Your task to perform on an android device: What's on my calendar tomorrow? Image 0: 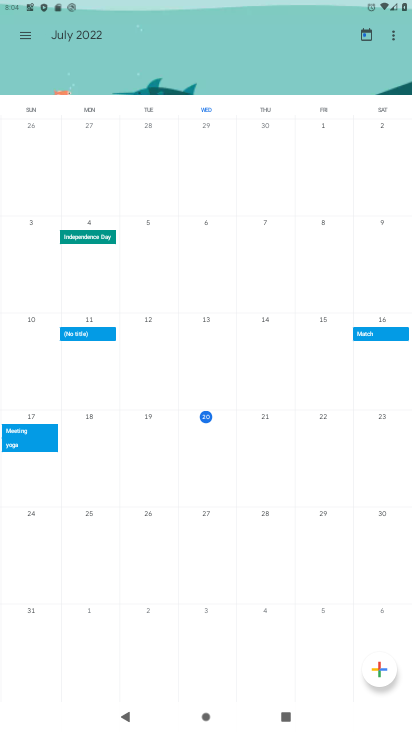
Step 0: press home button
Your task to perform on an android device: What's on my calendar tomorrow? Image 1: 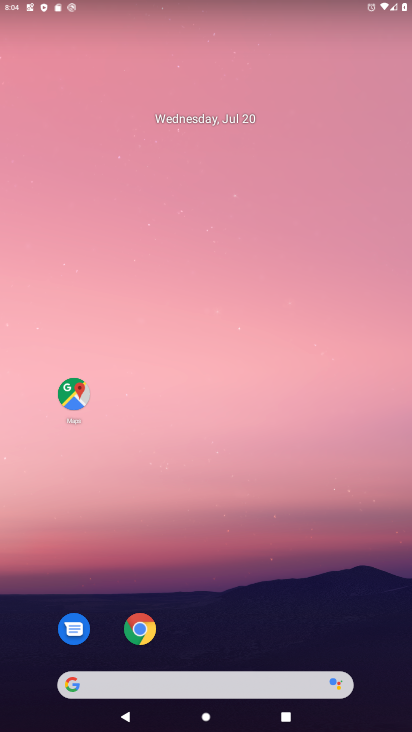
Step 1: drag from (202, 591) to (199, 307)
Your task to perform on an android device: What's on my calendar tomorrow? Image 2: 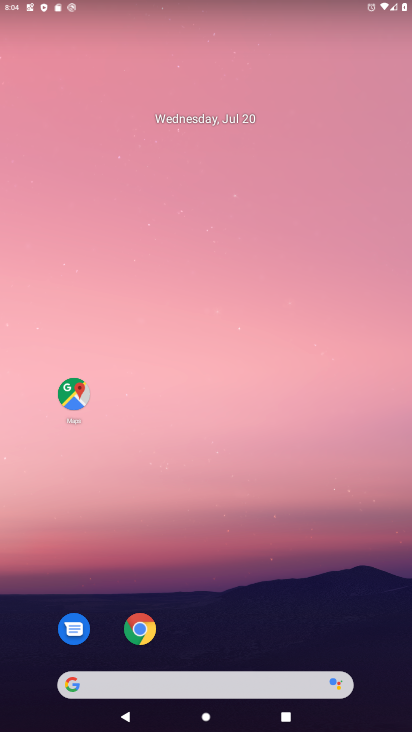
Step 2: drag from (179, 434) to (187, 14)
Your task to perform on an android device: What's on my calendar tomorrow? Image 3: 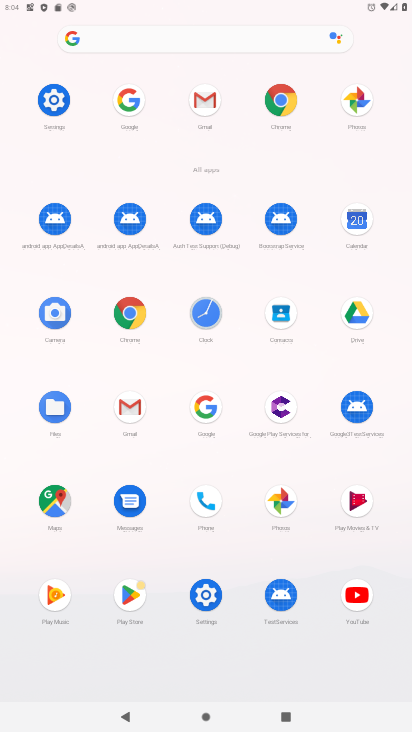
Step 3: click (358, 227)
Your task to perform on an android device: What's on my calendar tomorrow? Image 4: 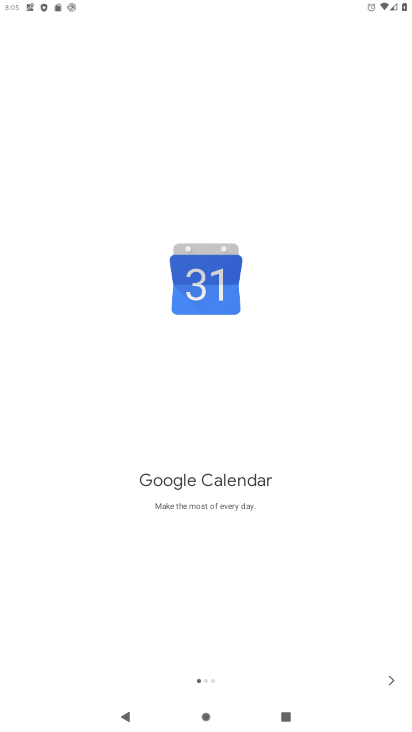
Step 4: click (388, 680)
Your task to perform on an android device: What's on my calendar tomorrow? Image 5: 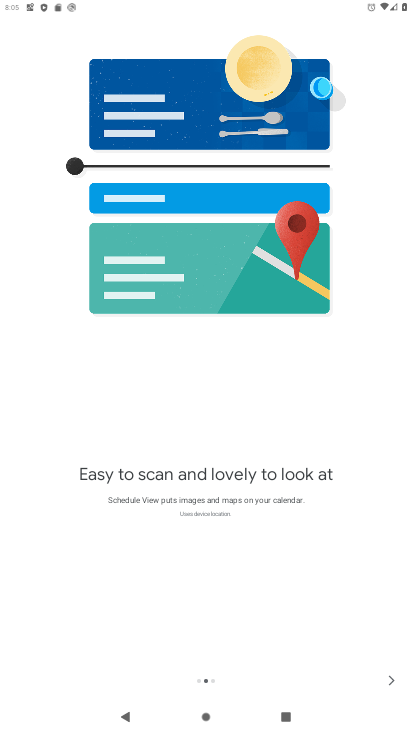
Step 5: click (388, 680)
Your task to perform on an android device: What's on my calendar tomorrow? Image 6: 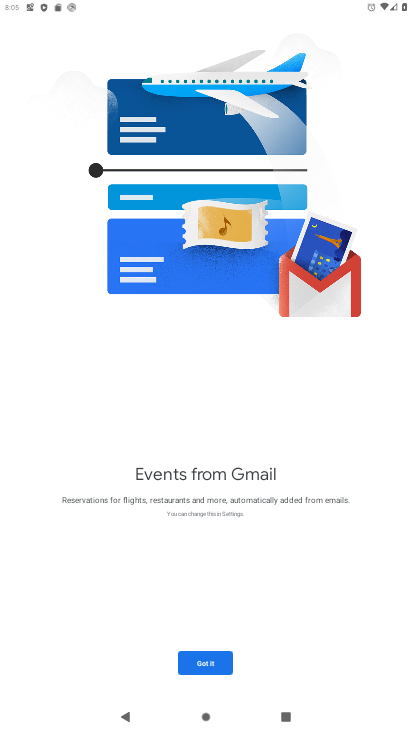
Step 6: click (210, 659)
Your task to perform on an android device: What's on my calendar tomorrow? Image 7: 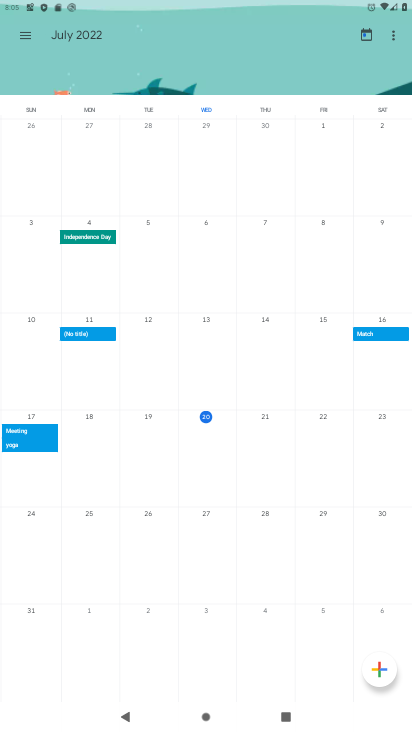
Step 7: click (262, 413)
Your task to perform on an android device: What's on my calendar tomorrow? Image 8: 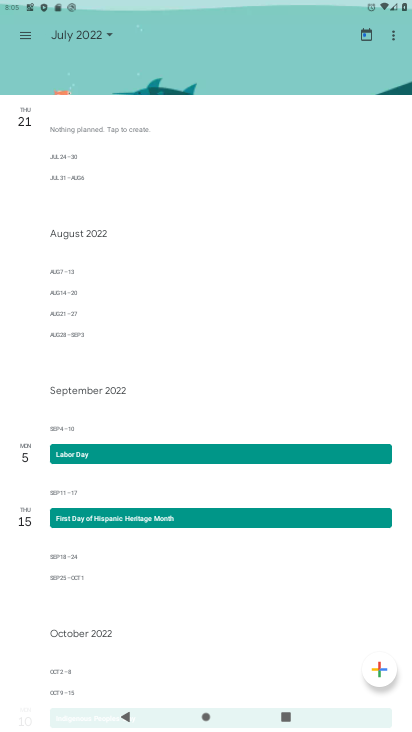
Step 8: task complete